Your task to perform on an android device: change notification settings in the gmail app Image 0: 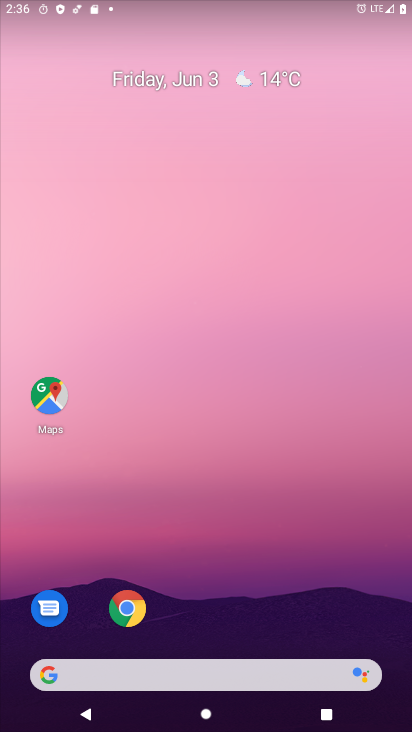
Step 0: drag from (211, 674) to (162, 171)
Your task to perform on an android device: change notification settings in the gmail app Image 1: 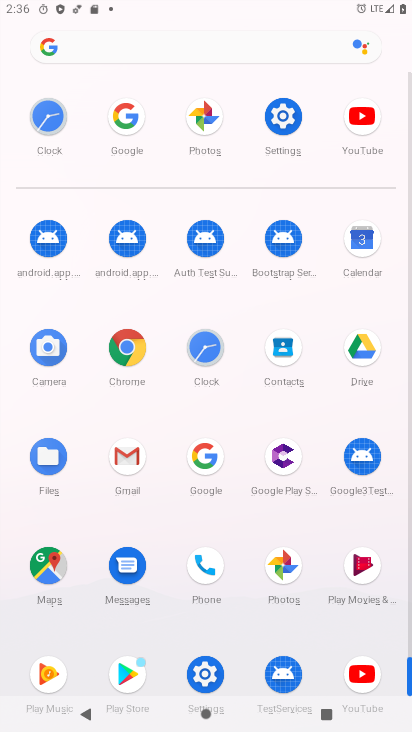
Step 1: click (123, 454)
Your task to perform on an android device: change notification settings in the gmail app Image 2: 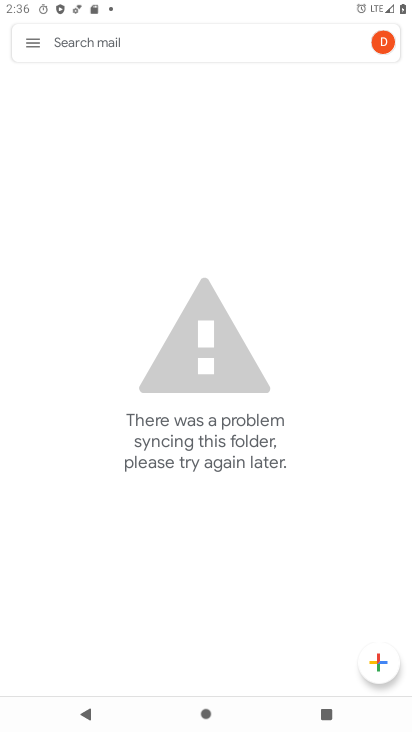
Step 2: click (47, 36)
Your task to perform on an android device: change notification settings in the gmail app Image 3: 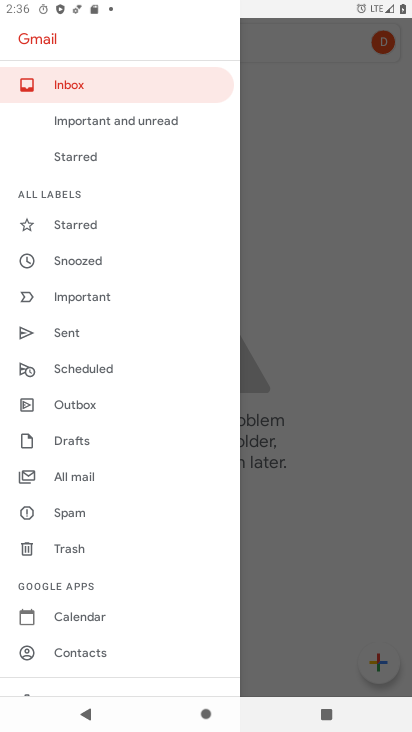
Step 3: drag from (78, 627) to (79, 224)
Your task to perform on an android device: change notification settings in the gmail app Image 4: 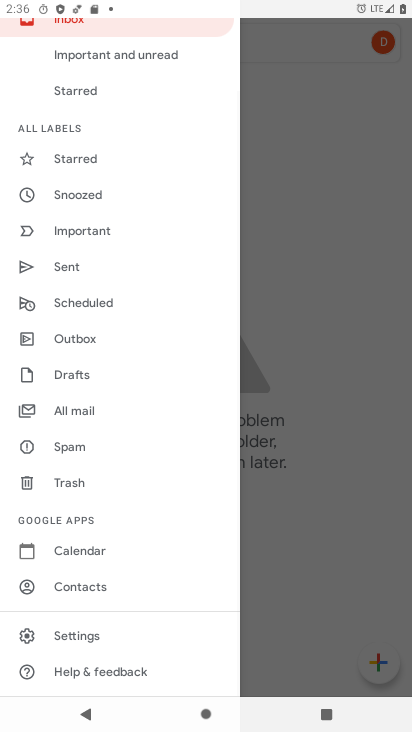
Step 4: click (72, 636)
Your task to perform on an android device: change notification settings in the gmail app Image 5: 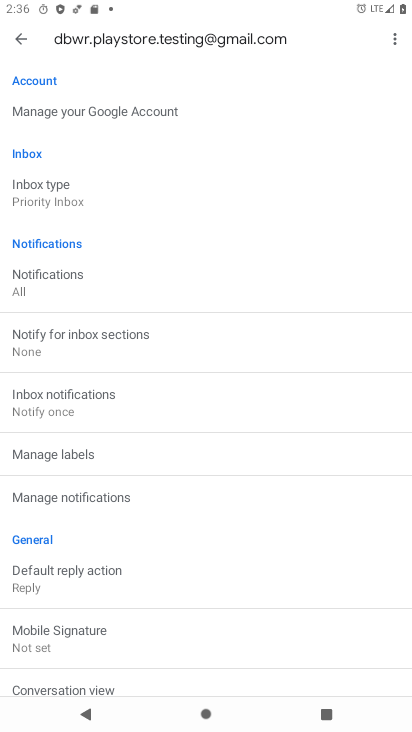
Step 5: click (62, 494)
Your task to perform on an android device: change notification settings in the gmail app Image 6: 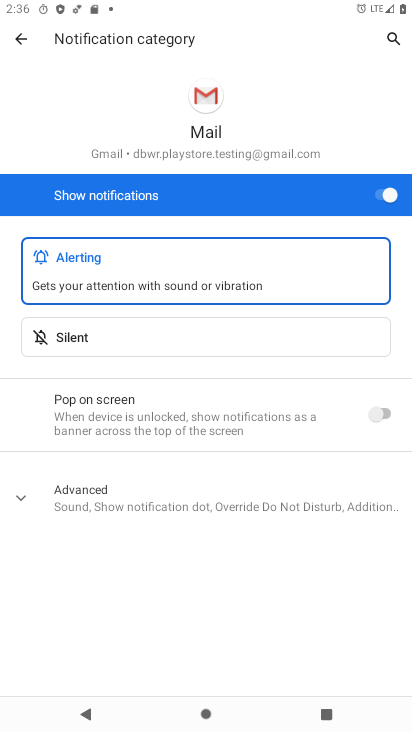
Step 6: click (391, 195)
Your task to perform on an android device: change notification settings in the gmail app Image 7: 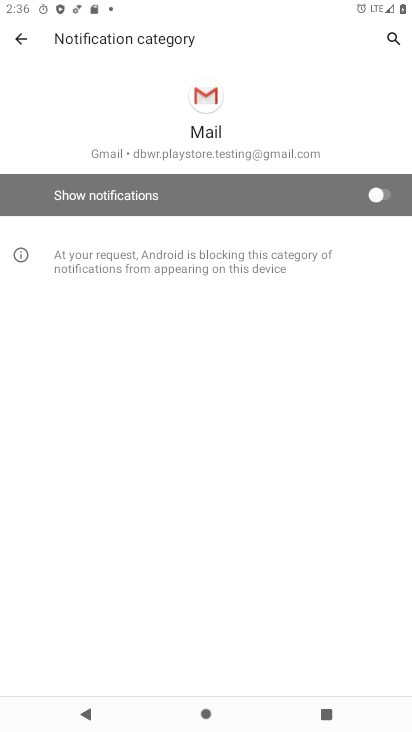
Step 7: task complete